Your task to perform on an android device: turn on sleep mode Image 0: 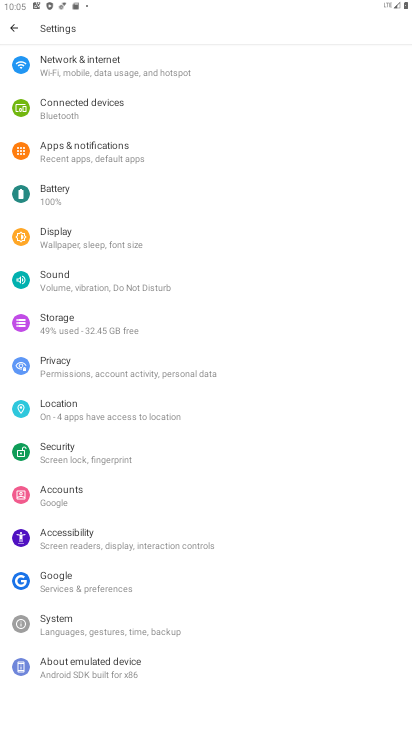
Step 0: click (114, 239)
Your task to perform on an android device: turn on sleep mode Image 1: 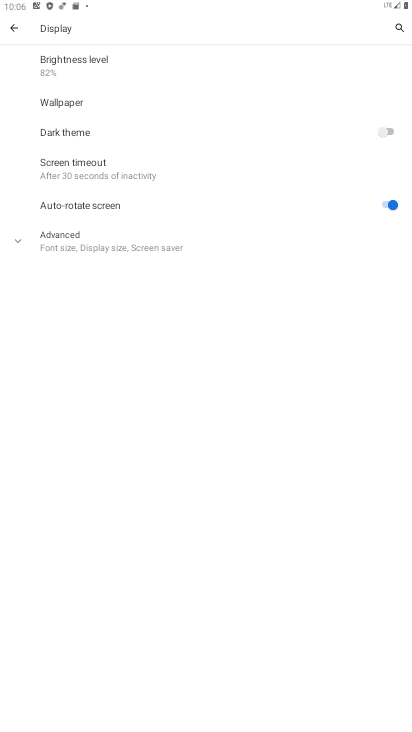
Step 1: click (113, 178)
Your task to perform on an android device: turn on sleep mode Image 2: 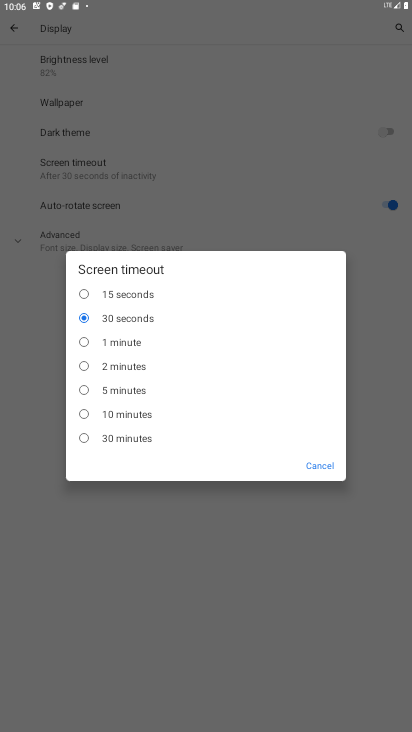
Step 2: click (128, 411)
Your task to perform on an android device: turn on sleep mode Image 3: 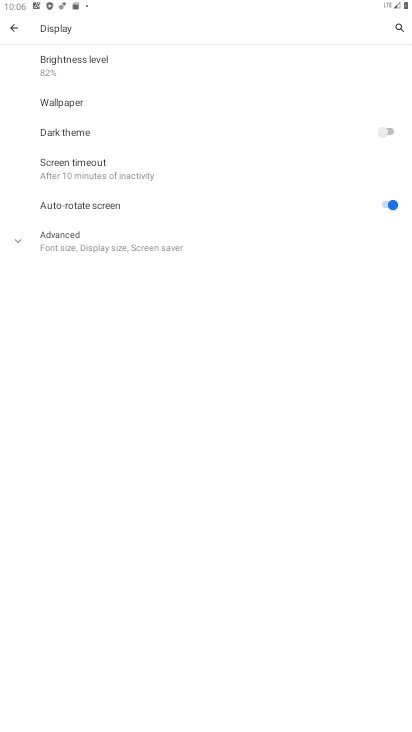
Step 3: task complete